Your task to perform on an android device: Toggle the flashlight Image 0: 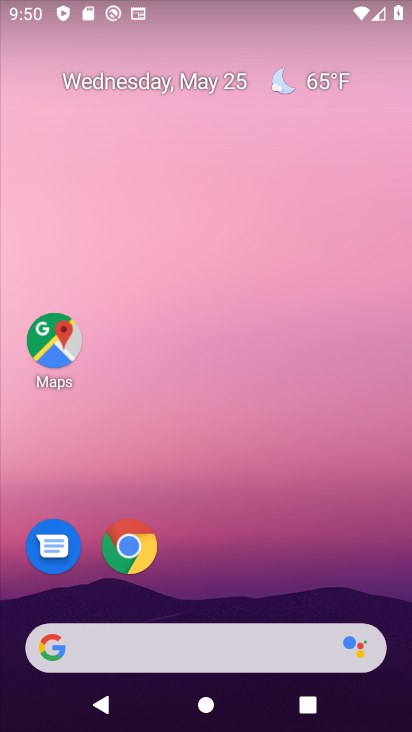
Step 0: drag from (297, 540) to (223, 17)
Your task to perform on an android device: Toggle the flashlight Image 1: 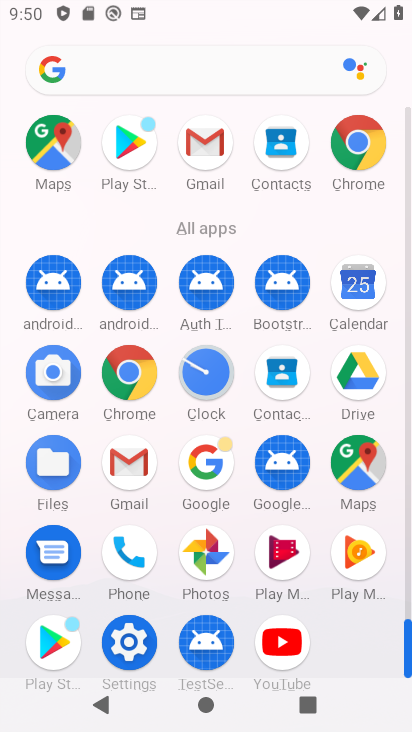
Step 1: click (126, 643)
Your task to perform on an android device: Toggle the flashlight Image 2: 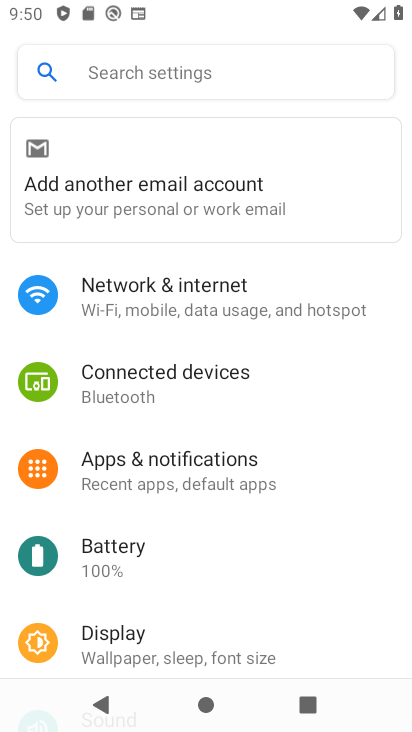
Step 2: click (260, 296)
Your task to perform on an android device: Toggle the flashlight Image 3: 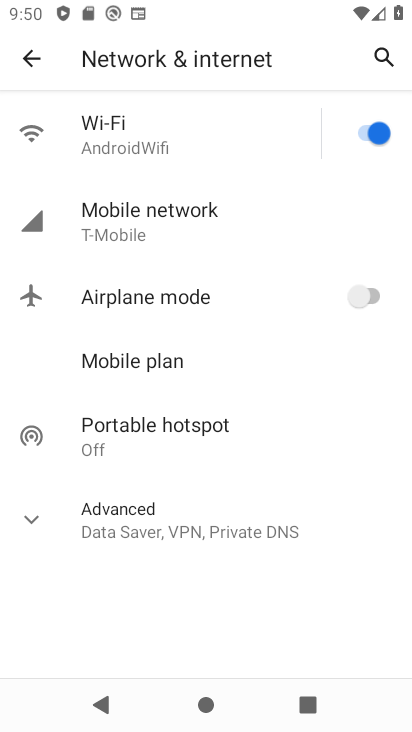
Step 3: click (51, 523)
Your task to perform on an android device: Toggle the flashlight Image 4: 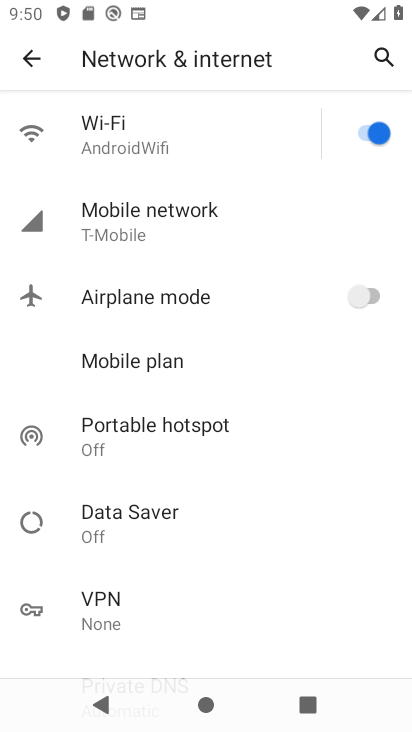
Step 4: task complete